Your task to perform on an android device: toggle translation in the chrome app Image 0: 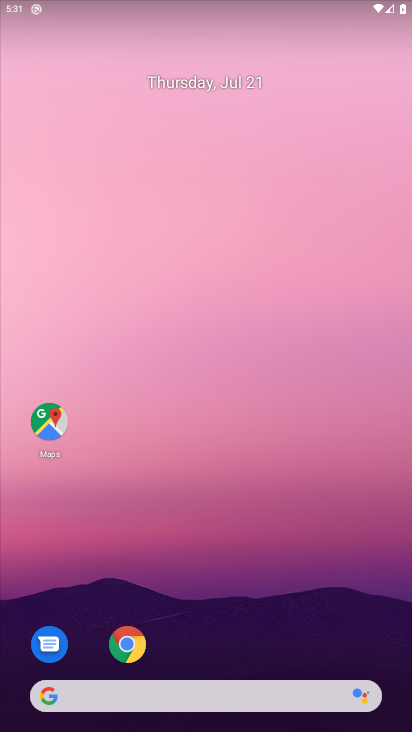
Step 0: click (128, 647)
Your task to perform on an android device: toggle translation in the chrome app Image 1: 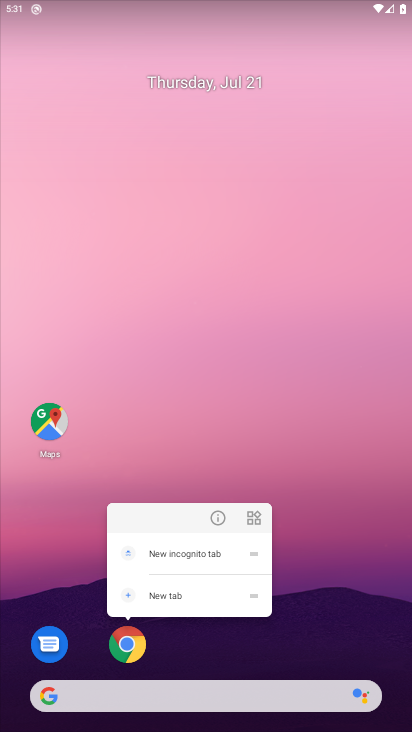
Step 1: click (128, 647)
Your task to perform on an android device: toggle translation in the chrome app Image 2: 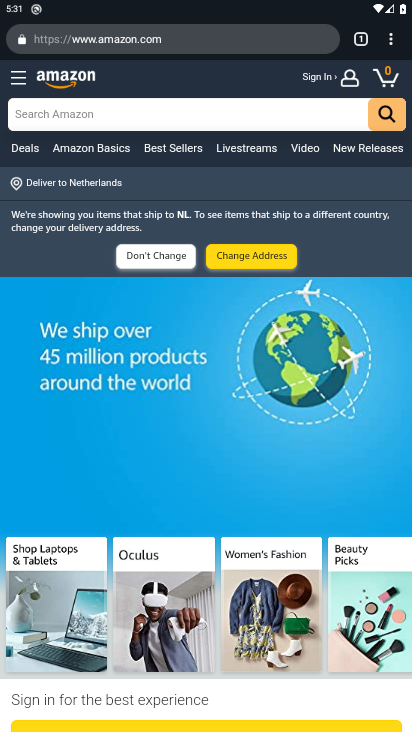
Step 2: task complete